Your task to perform on an android device: Open Google Chrome and open the bookmarks view Image 0: 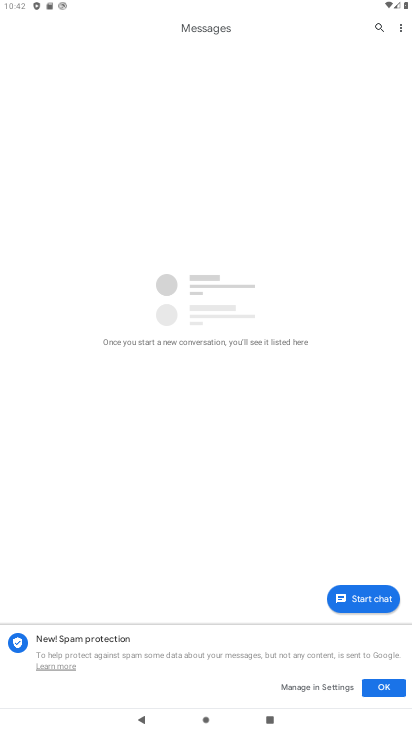
Step 0: press home button
Your task to perform on an android device: Open Google Chrome and open the bookmarks view Image 1: 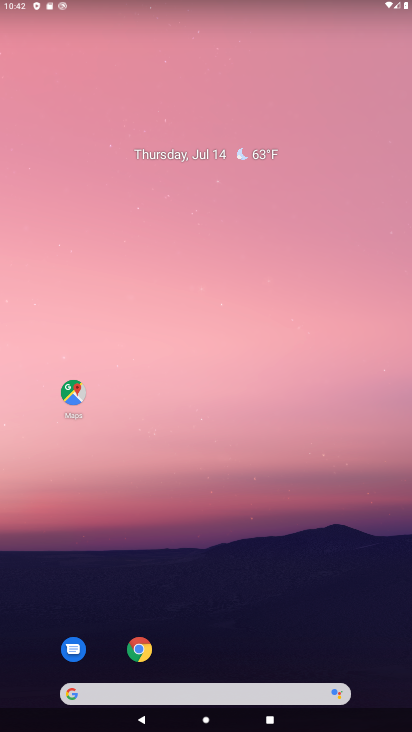
Step 1: drag from (219, 500) to (191, 99)
Your task to perform on an android device: Open Google Chrome and open the bookmarks view Image 2: 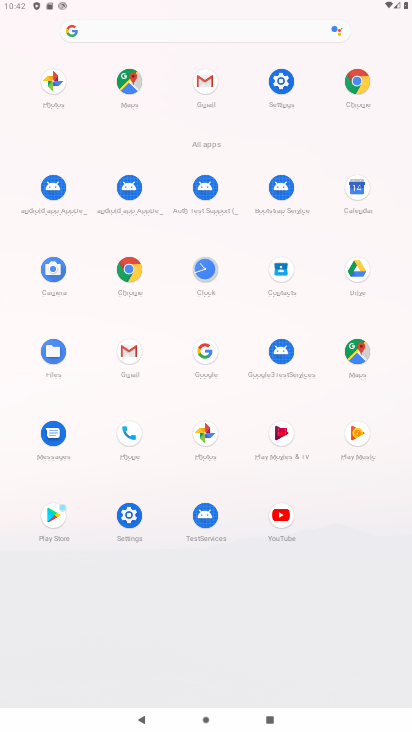
Step 2: click (381, 88)
Your task to perform on an android device: Open Google Chrome and open the bookmarks view Image 3: 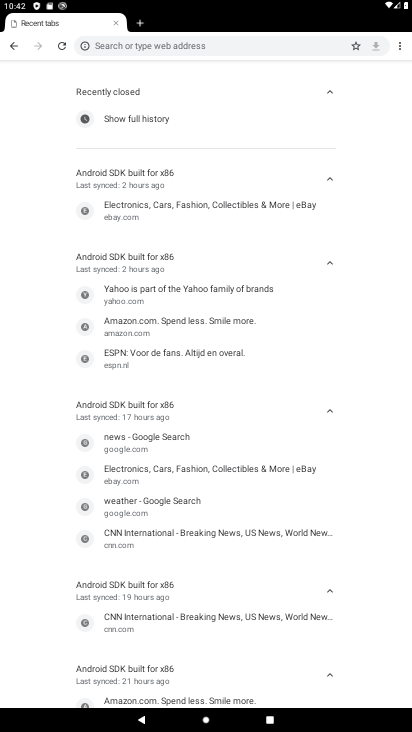
Step 3: task complete